Your task to perform on an android device: Open sound settings Image 0: 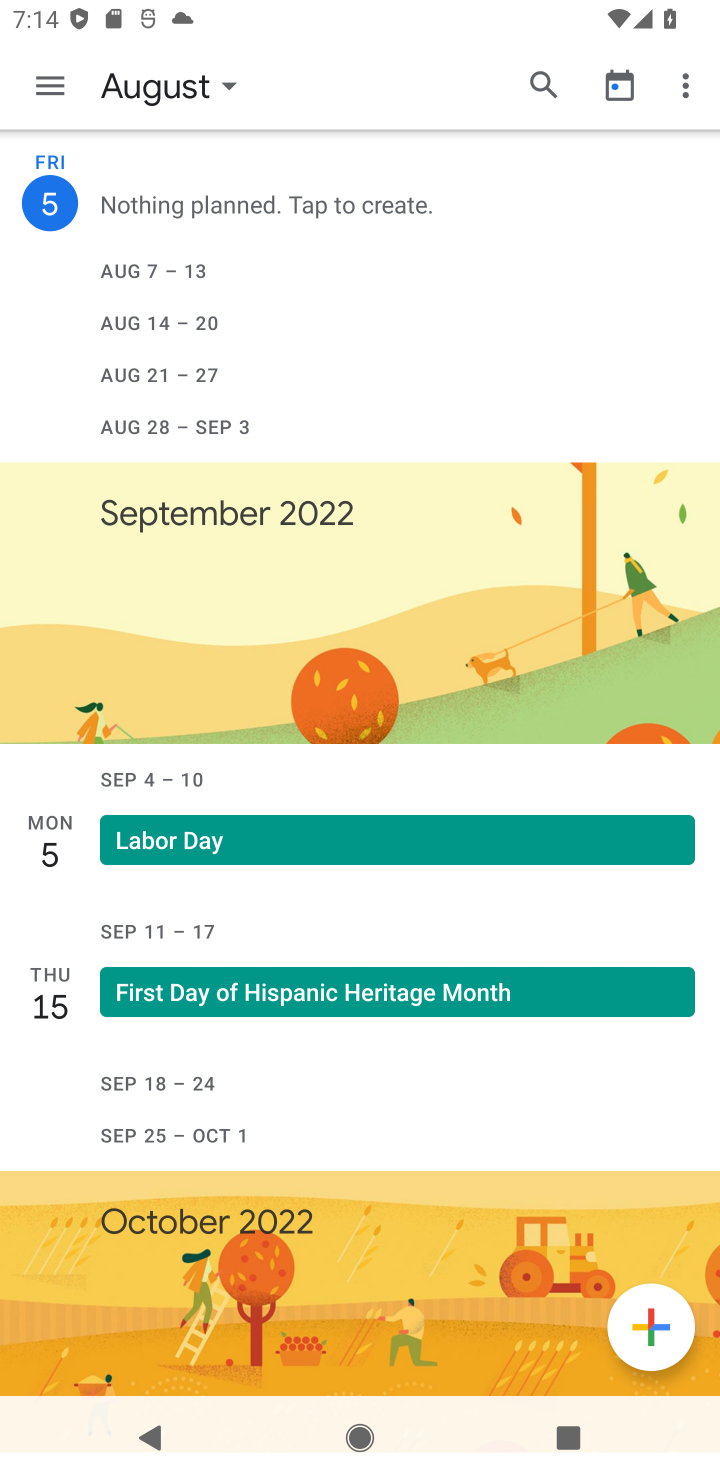
Step 0: press home button
Your task to perform on an android device: Open sound settings Image 1: 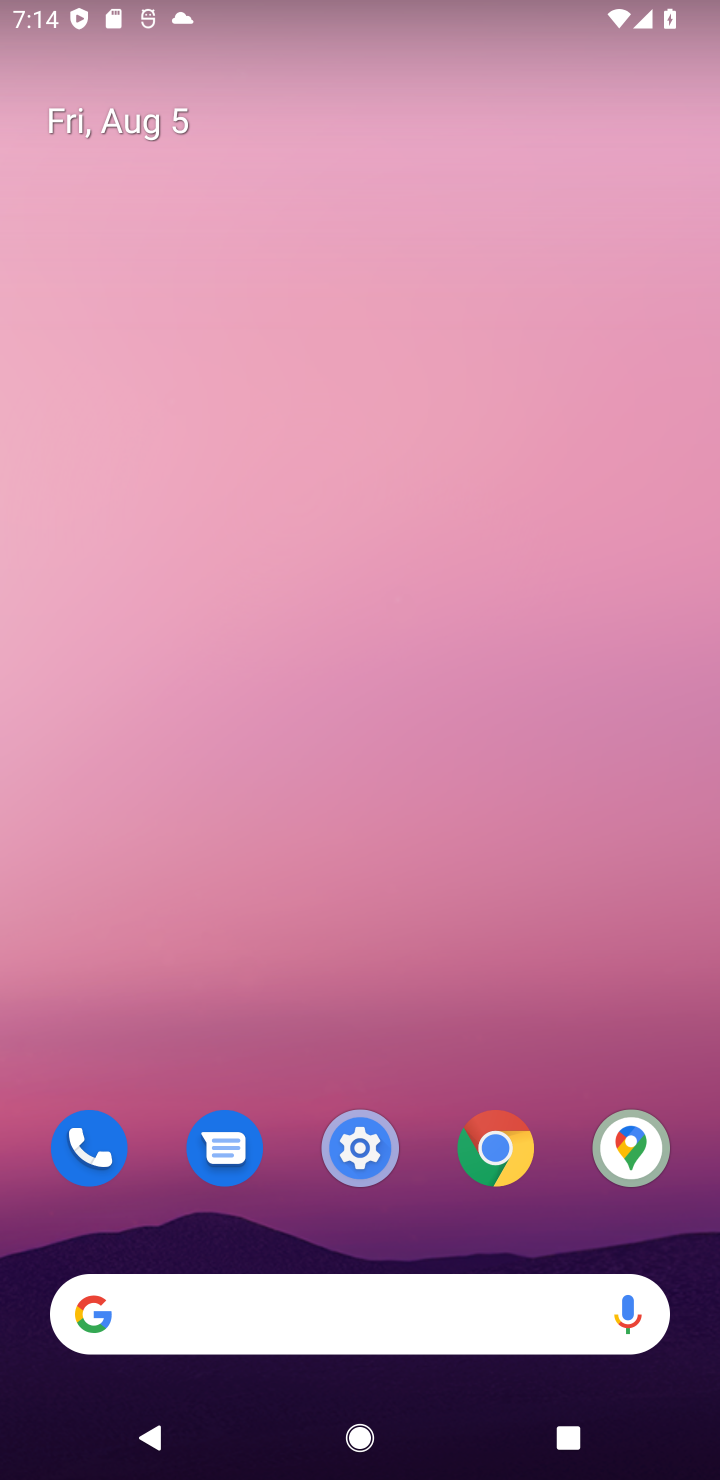
Step 1: click (358, 1116)
Your task to perform on an android device: Open sound settings Image 2: 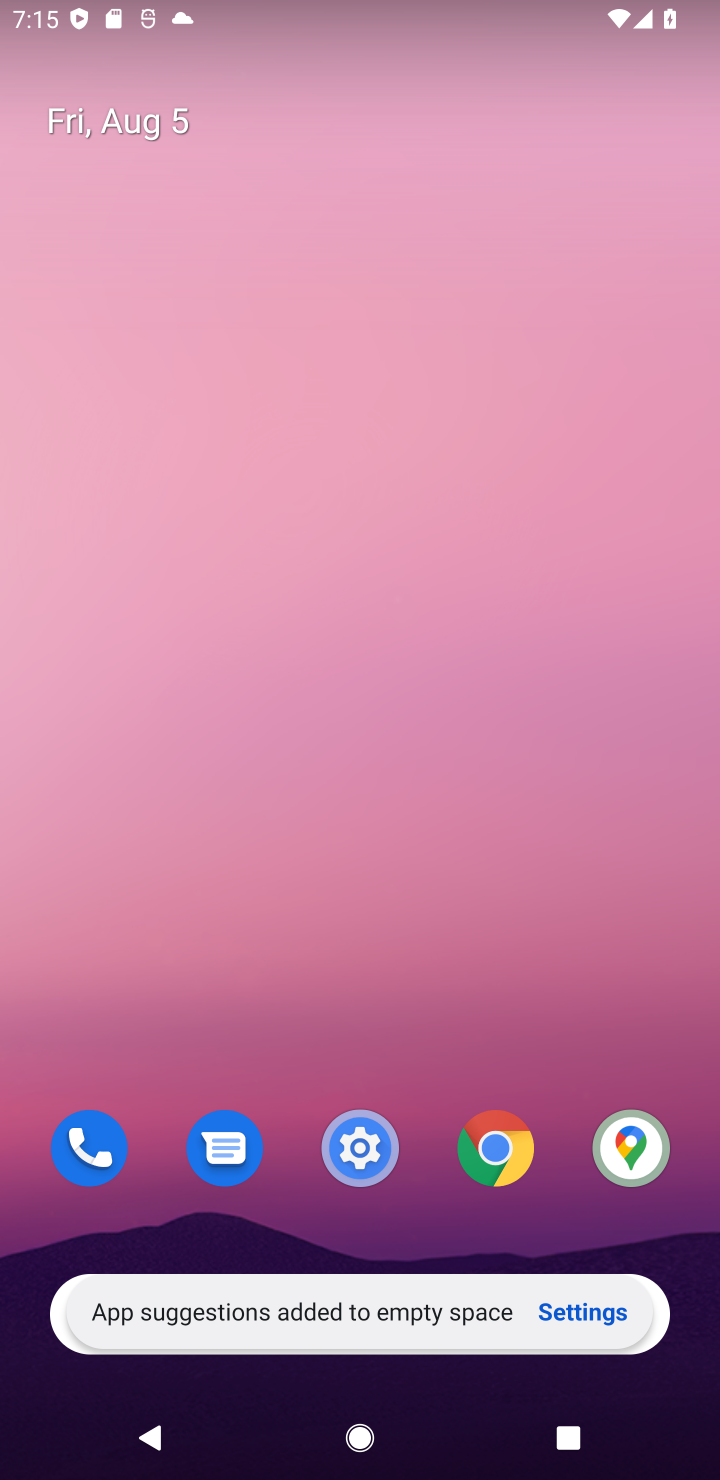
Step 2: click (330, 1146)
Your task to perform on an android device: Open sound settings Image 3: 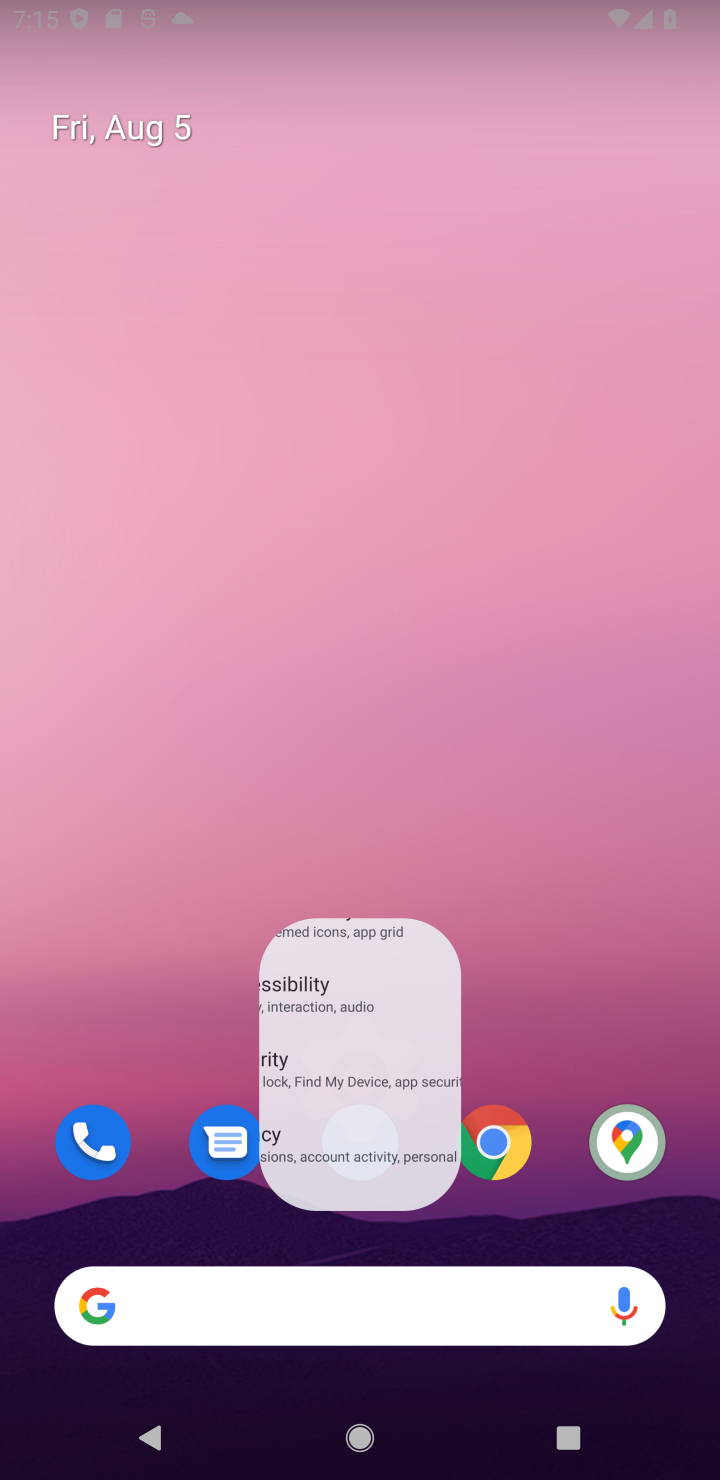
Step 3: click (330, 1146)
Your task to perform on an android device: Open sound settings Image 4: 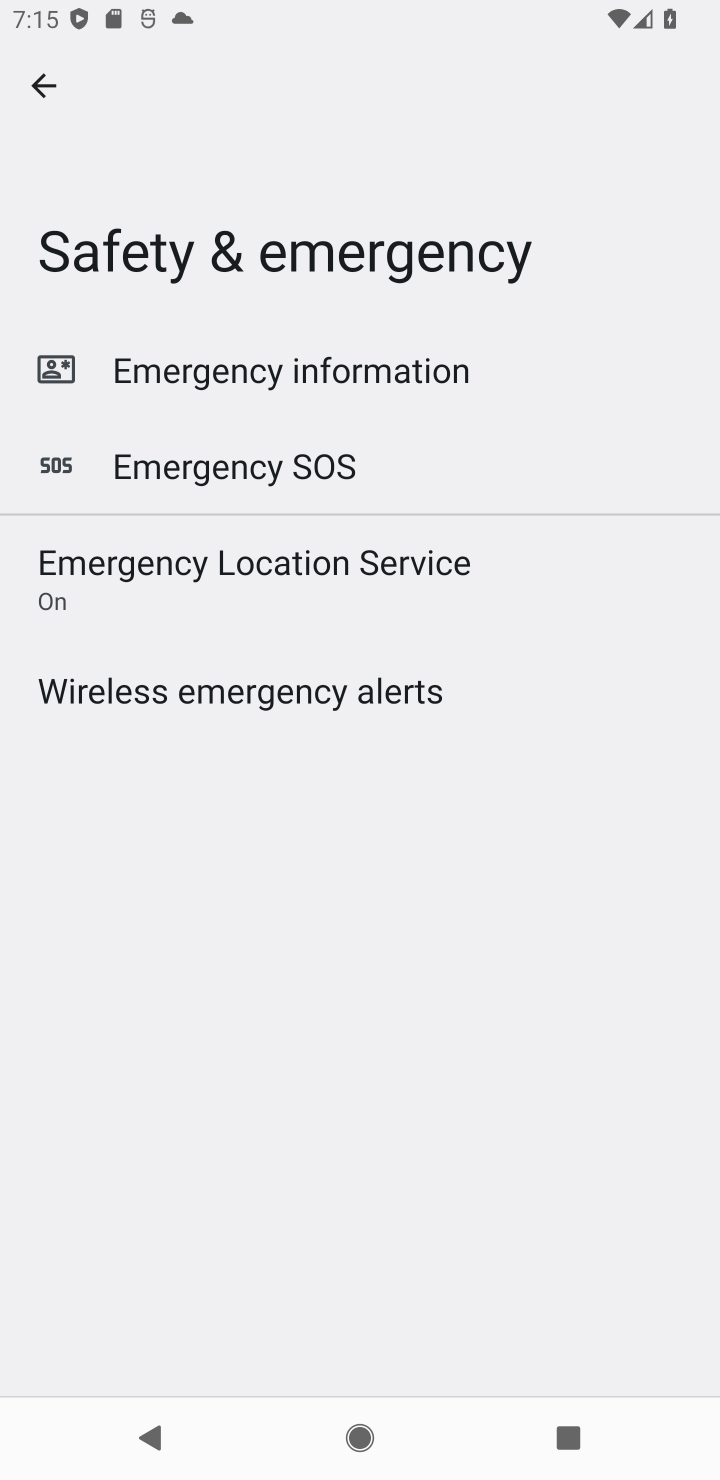
Step 4: click (56, 111)
Your task to perform on an android device: Open sound settings Image 5: 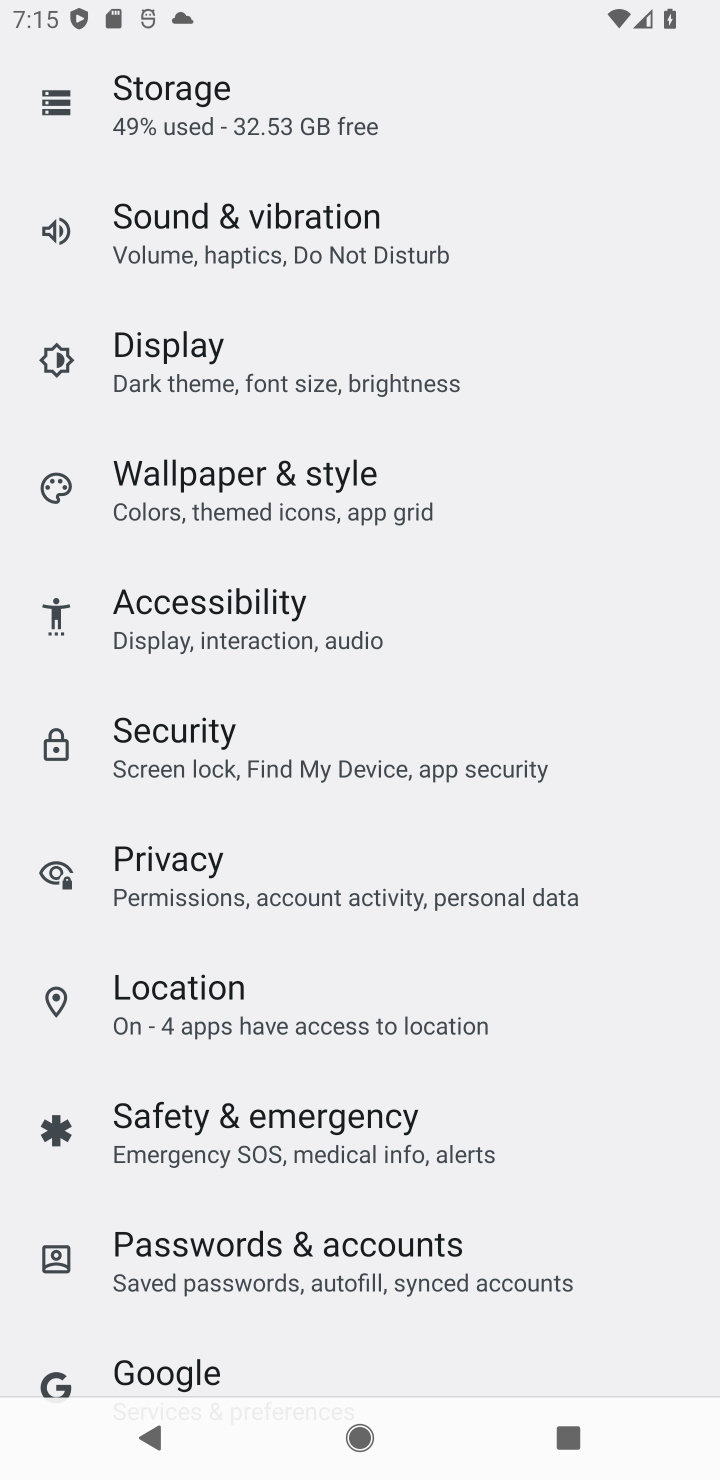
Step 5: click (272, 286)
Your task to perform on an android device: Open sound settings Image 6: 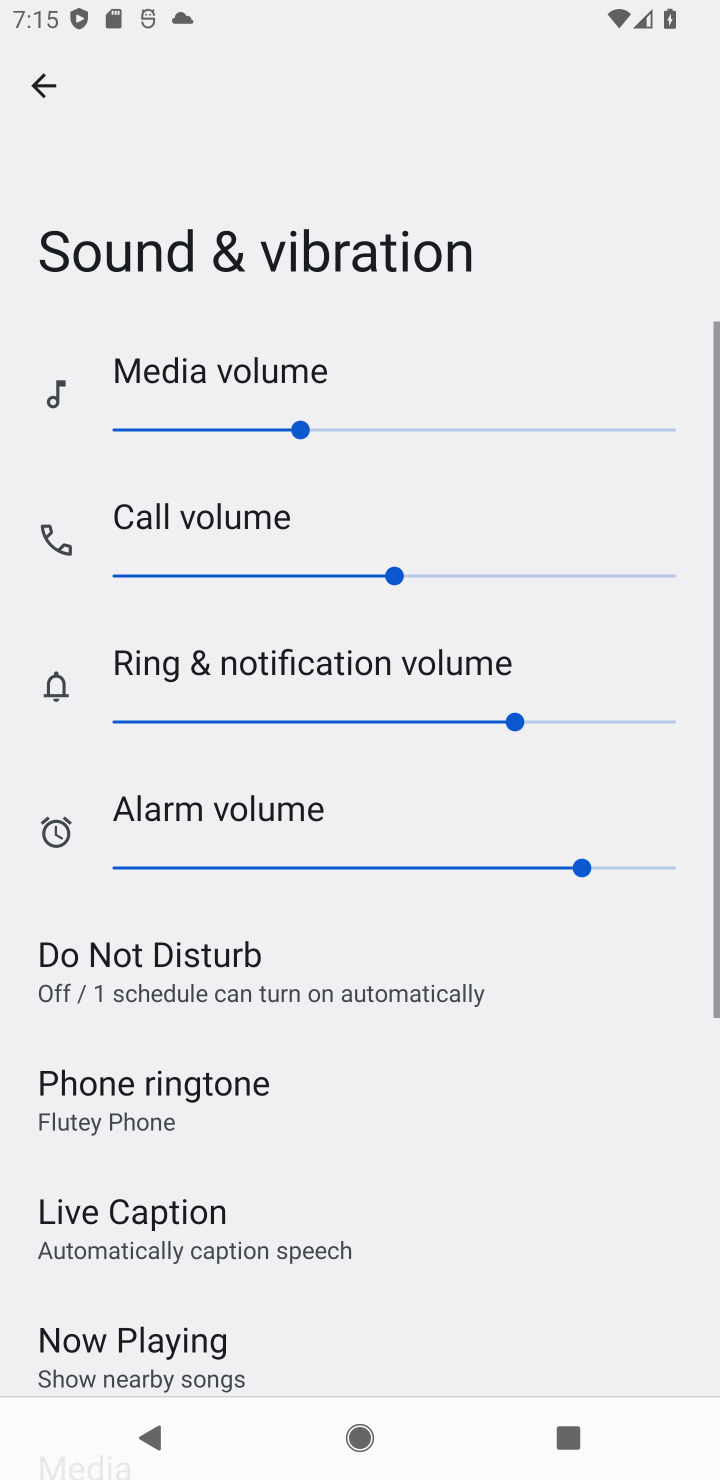
Step 6: task complete